Your task to perform on an android device: Play the latest video from the New York Times Image 0: 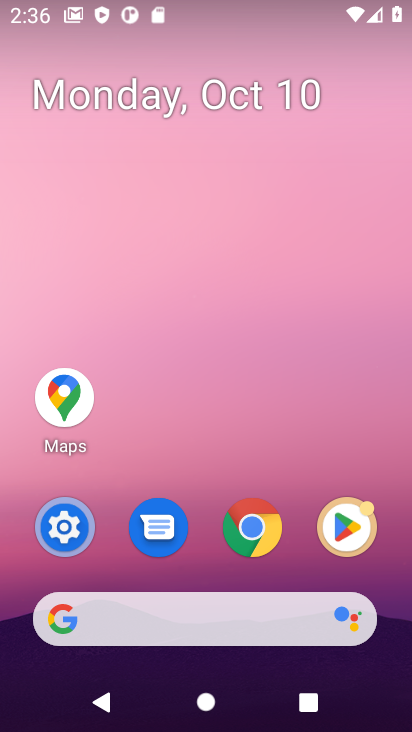
Step 0: press home button
Your task to perform on an android device: Play the latest video from the New York Times Image 1: 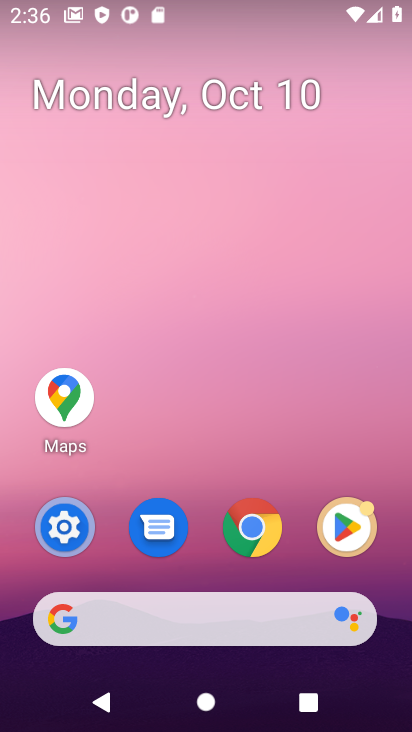
Step 1: click (265, 614)
Your task to perform on an android device: Play the latest video from the New York Times Image 2: 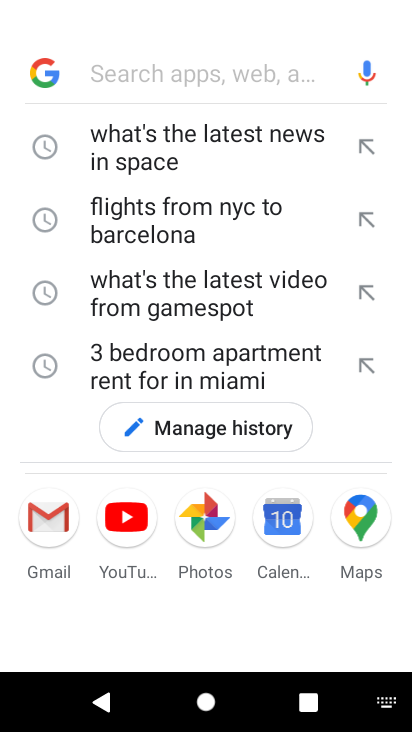
Step 2: type "Play the latest video from the New York Times"
Your task to perform on an android device: Play the latest video from the New York Times Image 3: 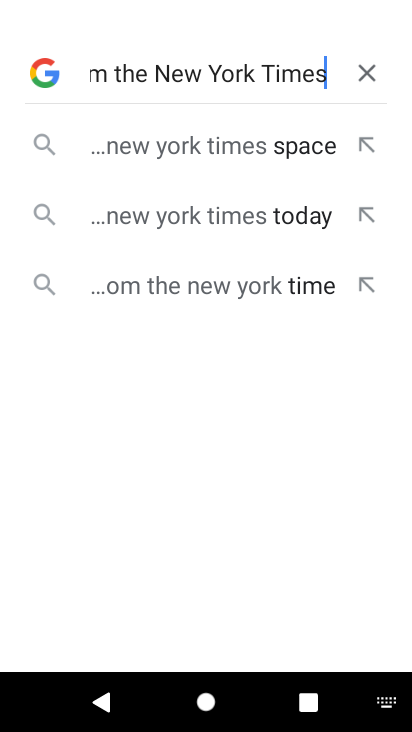
Step 3: press enter
Your task to perform on an android device: Play the latest video from the New York Times Image 4: 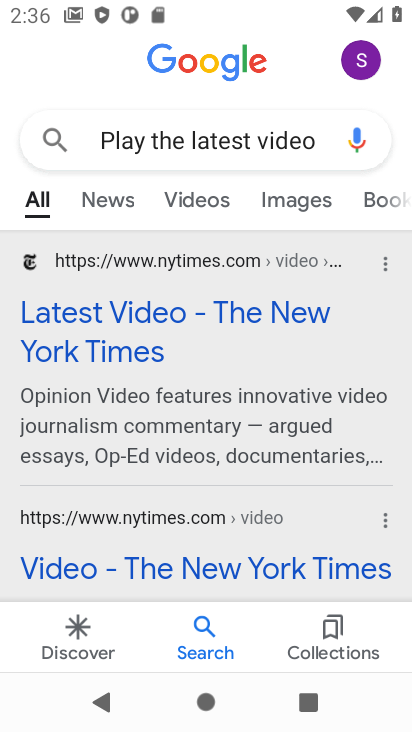
Step 4: click (114, 324)
Your task to perform on an android device: Play the latest video from the New York Times Image 5: 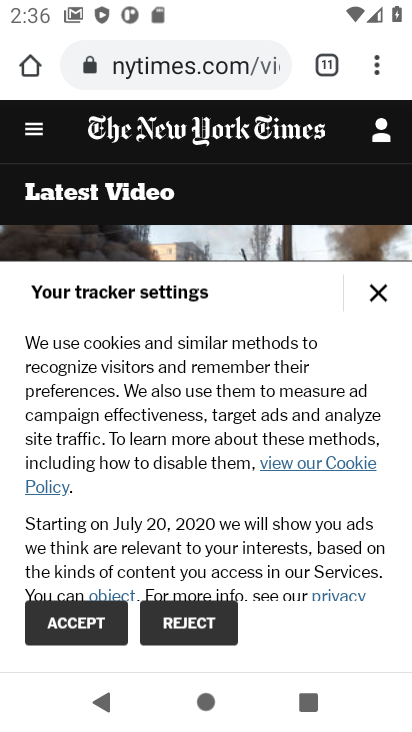
Step 5: click (67, 623)
Your task to perform on an android device: Play the latest video from the New York Times Image 6: 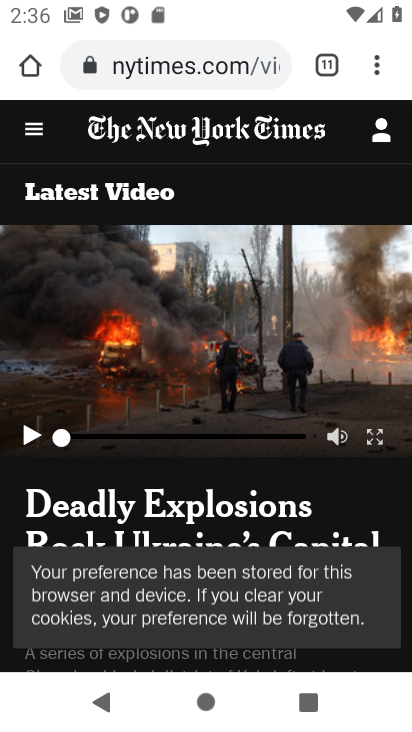
Step 6: click (24, 432)
Your task to perform on an android device: Play the latest video from the New York Times Image 7: 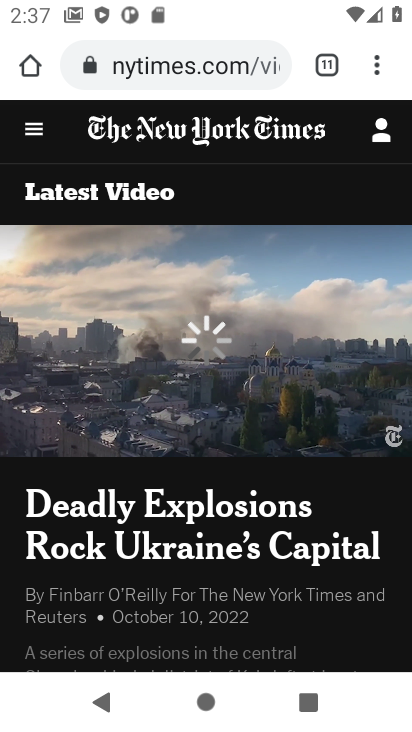
Step 7: task complete